Your task to perform on an android device: Go to network settings Image 0: 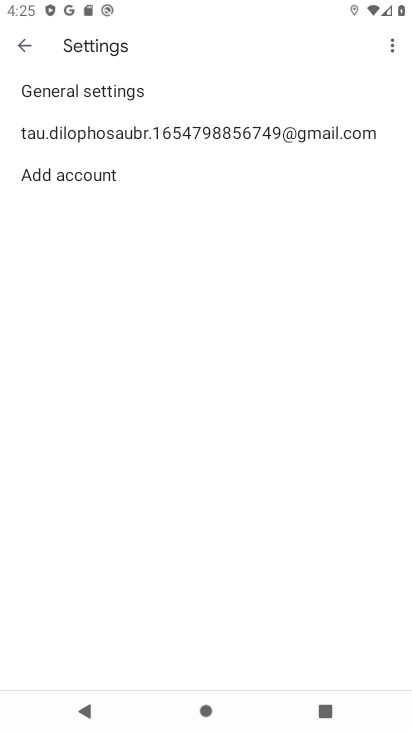
Step 0: press home button
Your task to perform on an android device: Go to network settings Image 1: 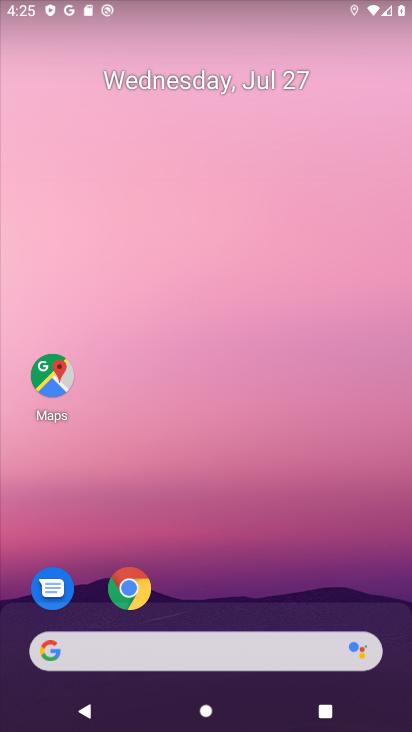
Step 1: drag from (206, 328) to (207, 90)
Your task to perform on an android device: Go to network settings Image 2: 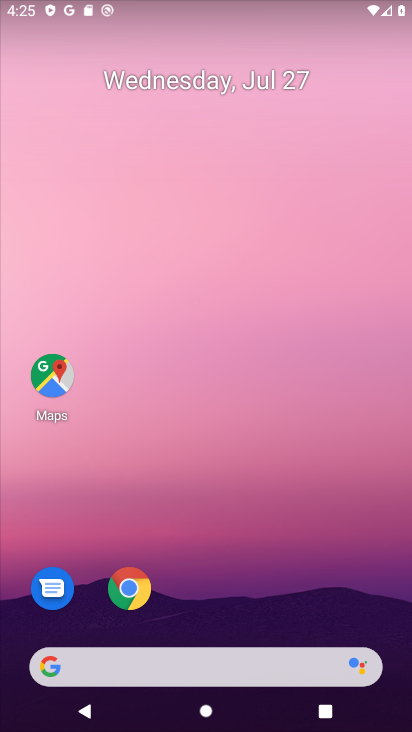
Step 2: drag from (231, 614) to (205, 155)
Your task to perform on an android device: Go to network settings Image 3: 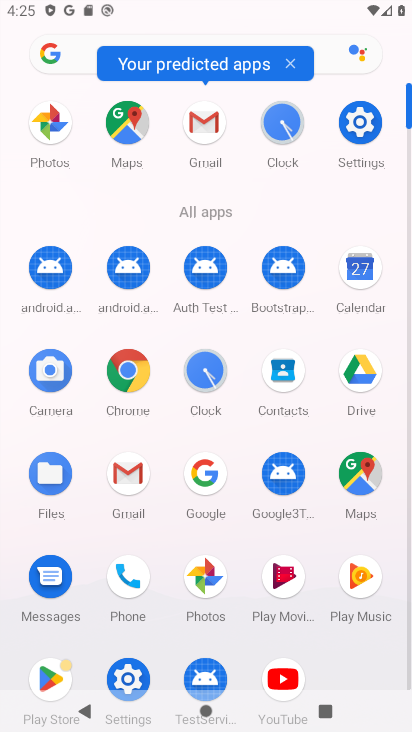
Step 3: click (364, 146)
Your task to perform on an android device: Go to network settings Image 4: 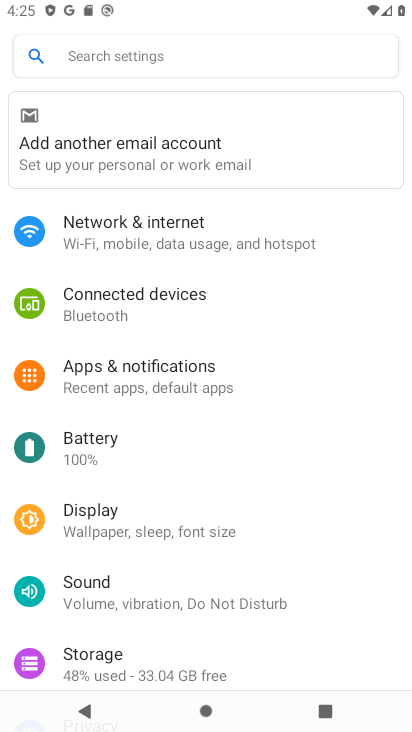
Step 4: click (102, 222)
Your task to perform on an android device: Go to network settings Image 5: 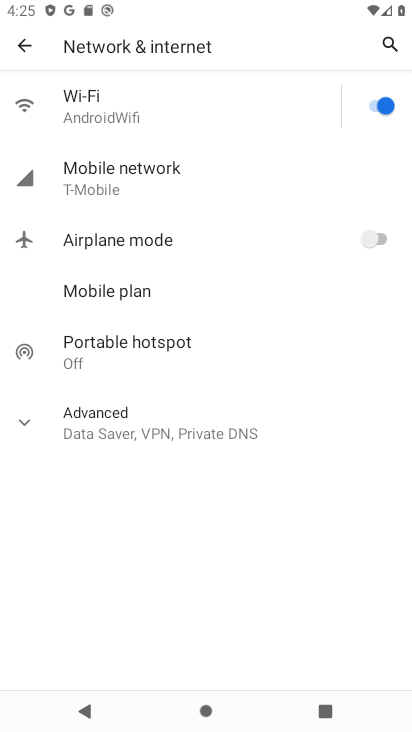
Step 5: task complete